Your task to perform on an android device: Open network settings Image 0: 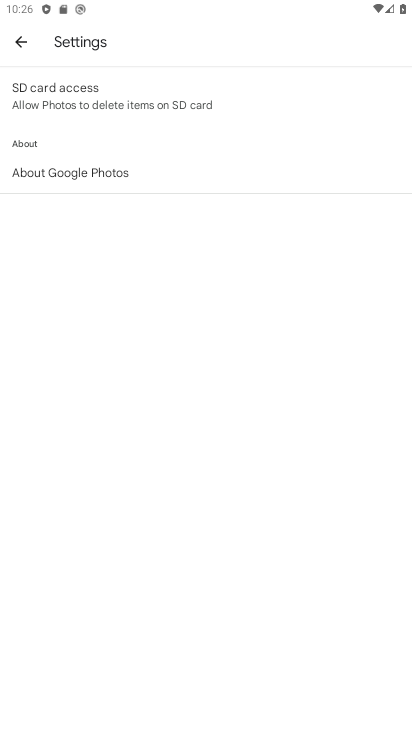
Step 0: press home button
Your task to perform on an android device: Open network settings Image 1: 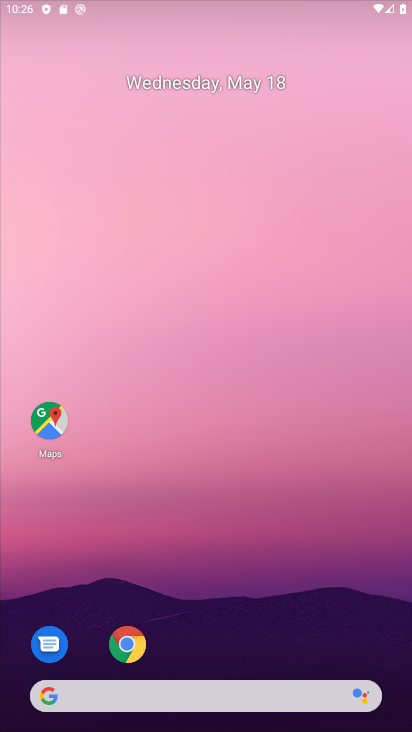
Step 1: drag from (338, 573) to (240, 46)
Your task to perform on an android device: Open network settings Image 2: 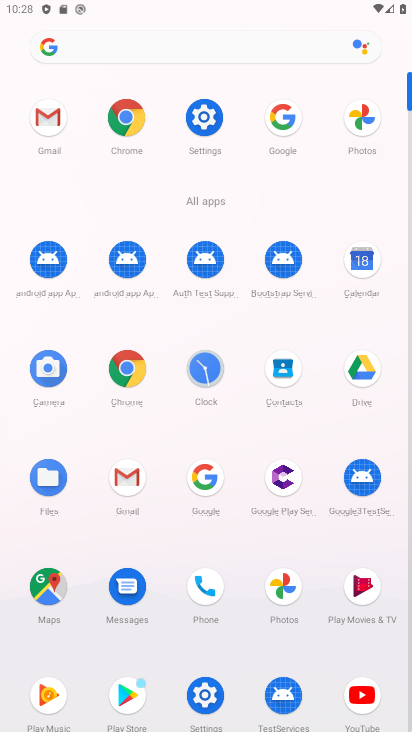
Step 2: click (191, 118)
Your task to perform on an android device: Open network settings Image 3: 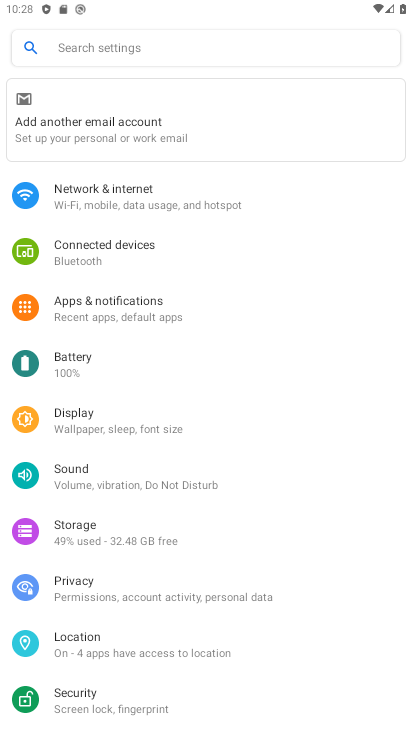
Step 3: click (93, 193)
Your task to perform on an android device: Open network settings Image 4: 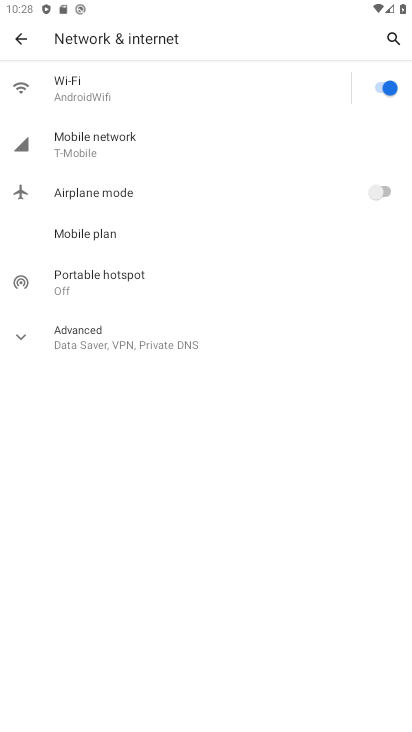
Step 4: task complete